Your task to perform on an android device: Open calendar and show me the second week of next month Image 0: 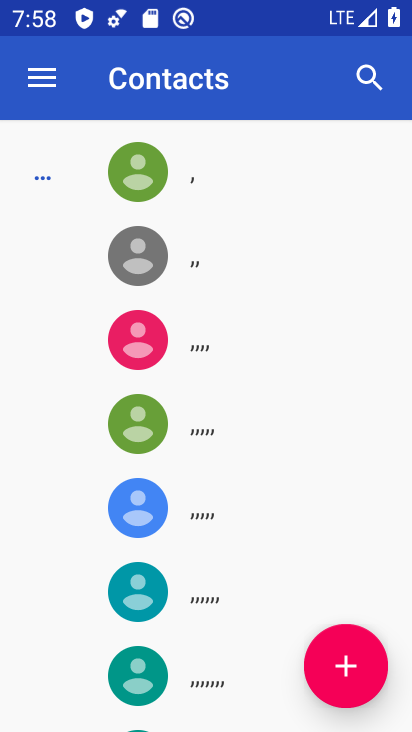
Step 0: press back button
Your task to perform on an android device: Open calendar and show me the second week of next month Image 1: 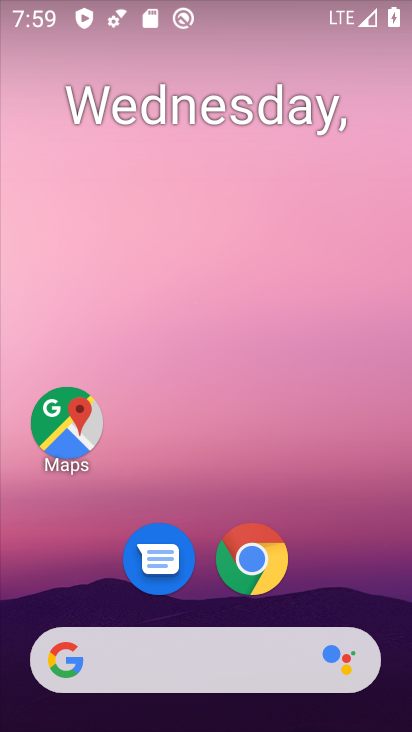
Step 1: drag from (224, 546) to (308, 105)
Your task to perform on an android device: Open calendar and show me the second week of next month Image 2: 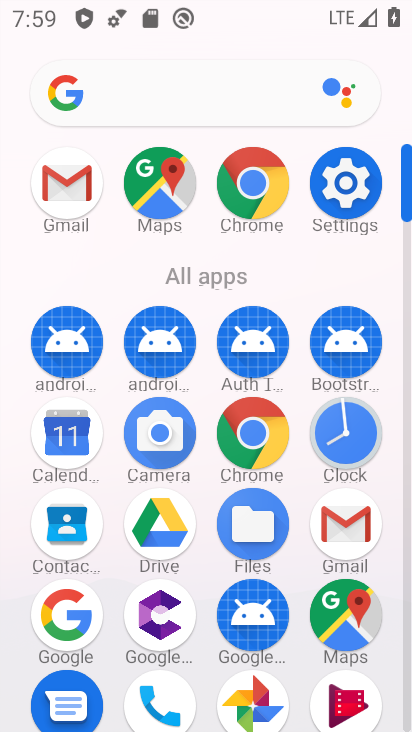
Step 2: click (67, 450)
Your task to perform on an android device: Open calendar and show me the second week of next month Image 3: 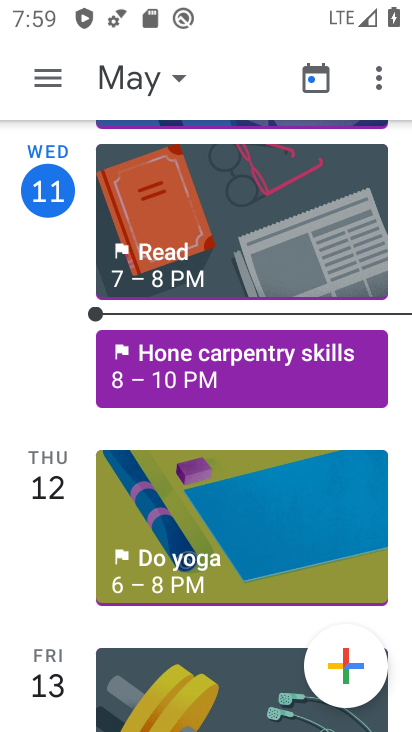
Step 3: click (157, 71)
Your task to perform on an android device: Open calendar and show me the second week of next month Image 4: 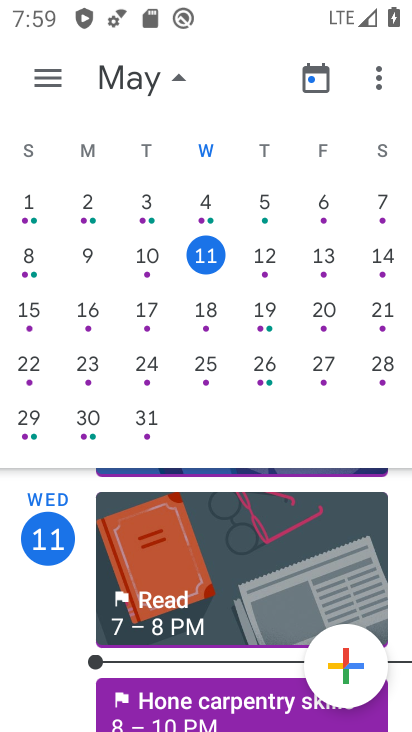
Step 4: drag from (376, 351) to (13, 319)
Your task to perform on an android device: Open calendar and show me the second week of next month Image 5: 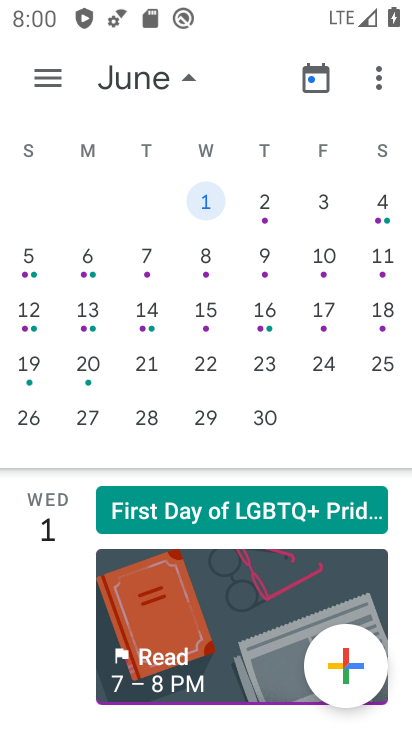
Step 5: click (84, 258)
Your task to perform on an android device: Open calendar and show me the second week of next month Image 6: 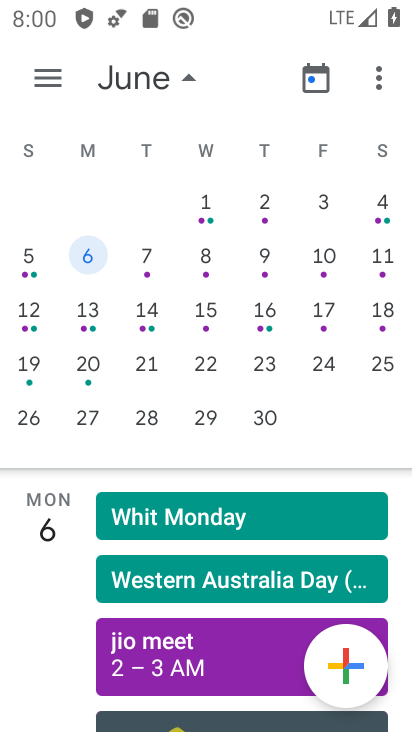
Step 6: task complete